Your task to perform on an android device: open a bookmark in the chrome app Image 0: 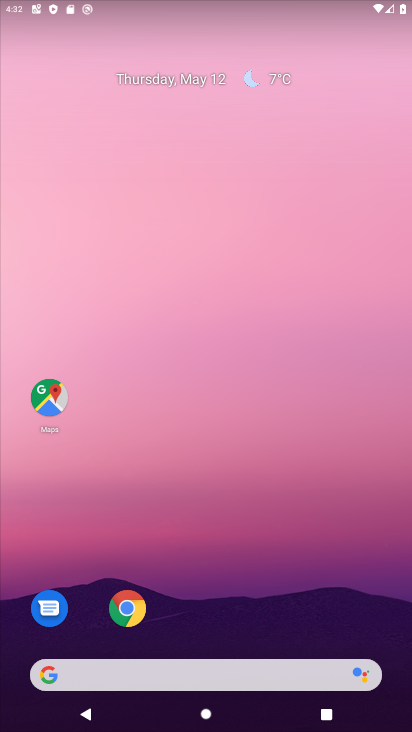
Step 0: click (129, 615)
Your task to perform on an android device: open a bookmark in the chrome app Image 1: 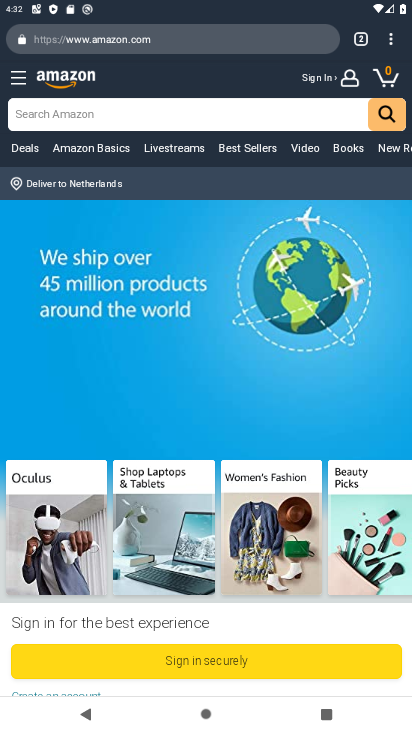
Step 1: click (384, 44)
Your task to perform on an android device: open a bookmark in the chrome app Image 2: 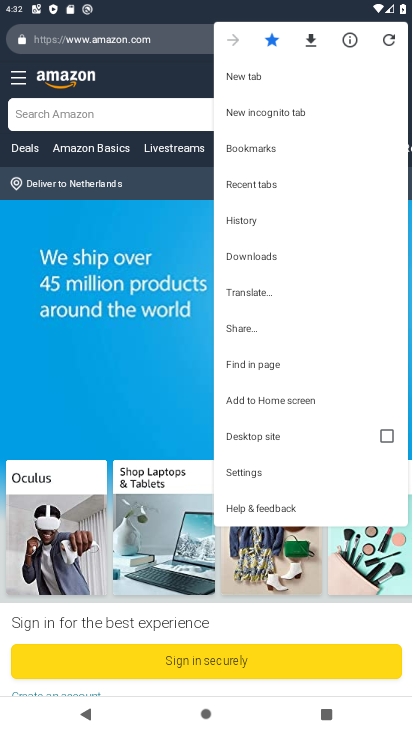
Step 2: click (302, 142)
Your task to perform on an android device: open a bookmark in the chrome app Image 3: 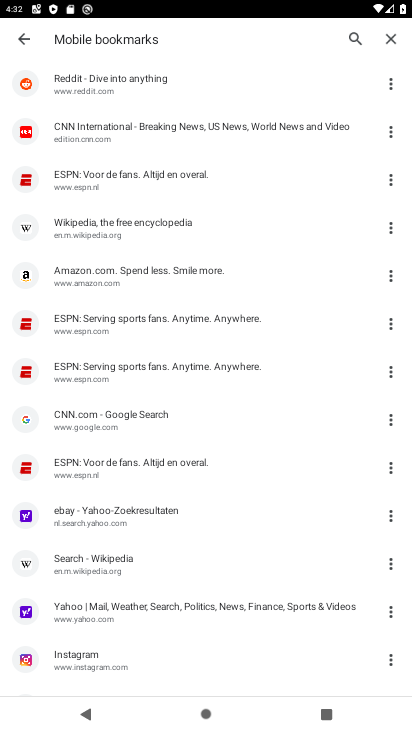
Step 3: click (138, 448)
Your task to perform on an android device: open a bookmark in the chrome app Image 4: 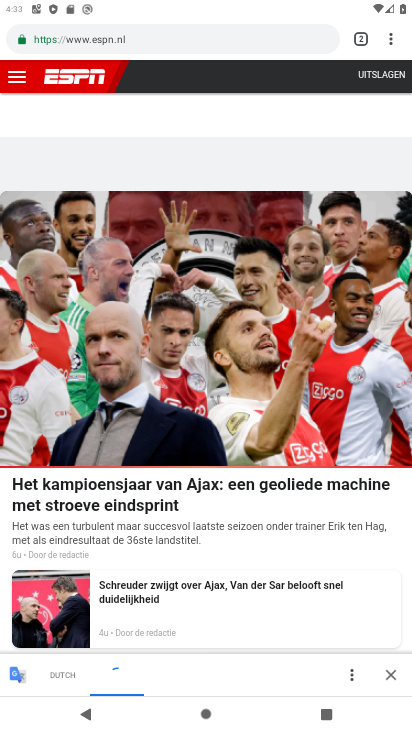
Step 4: task complete